Your task to perform on an android device: Open calendar and show me the third week of next month Image 0: 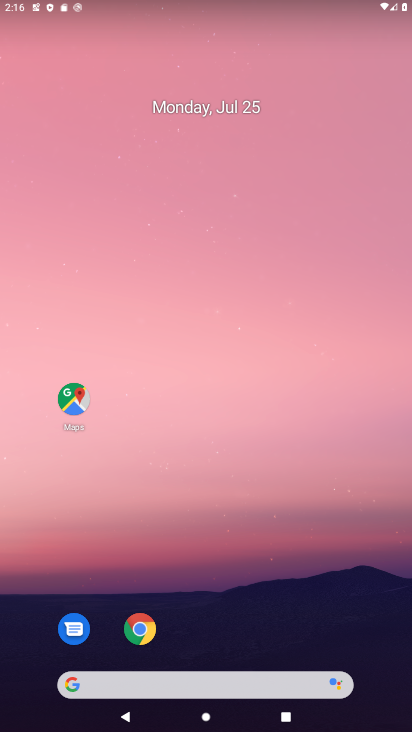
Step 0: drag from (83, 435) to (144, 154)
Your task to perform on an android device: Open calendar and show me the third week of next month Image 1: 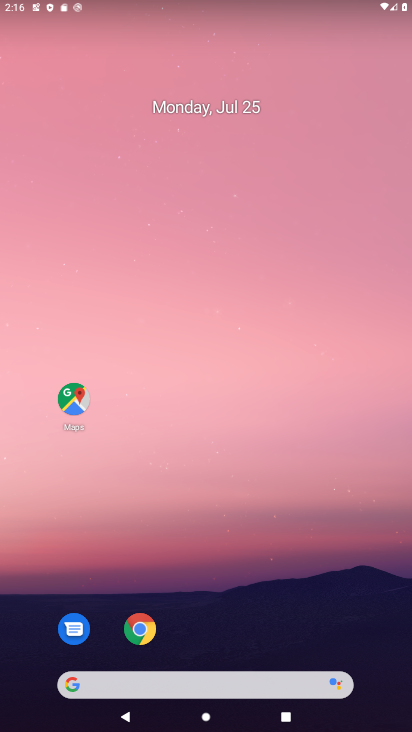
Step 1: drag from (15, 687) to (197, 140)
Your task to perform on an android device: Open calendar and show me the third week of next month Image 2: 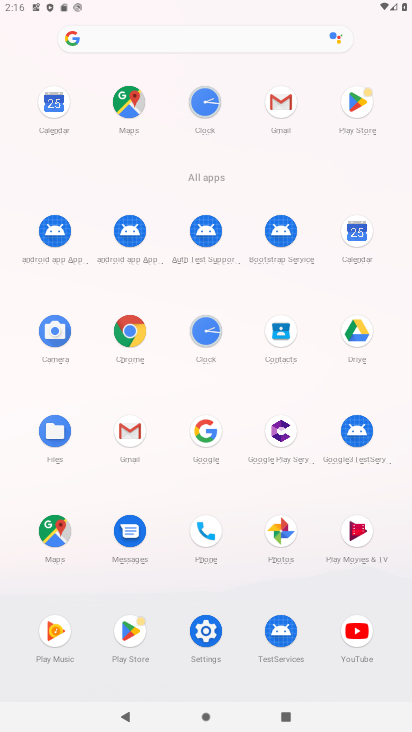
Step 2: click (348, 247)
Your task to perform on an android device: Open calendar and show me the third week of next month Image 3: 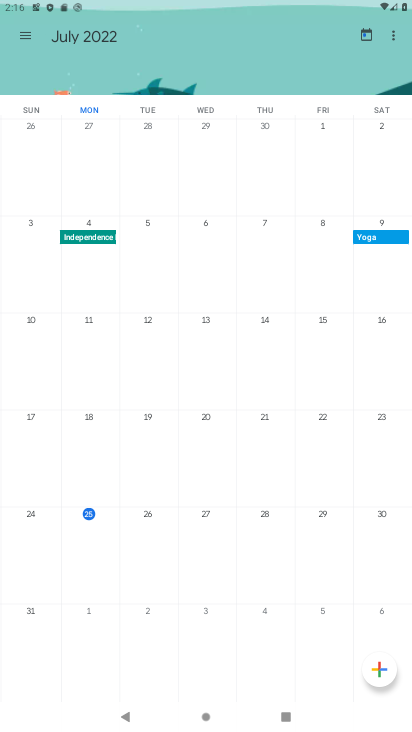
Step 3: drag from (384, 368) to (121, 339)
Your task to perform on an android device: Open calendar and show me the third week of next month Image 4: 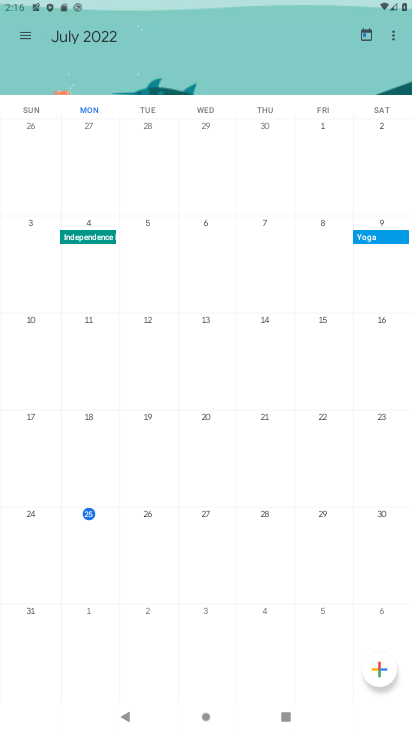
Step 4: drag from (396, 277) to (1, 373)
Your task to perform on an android device: Open calendar and show me the third week of next month Image 5: 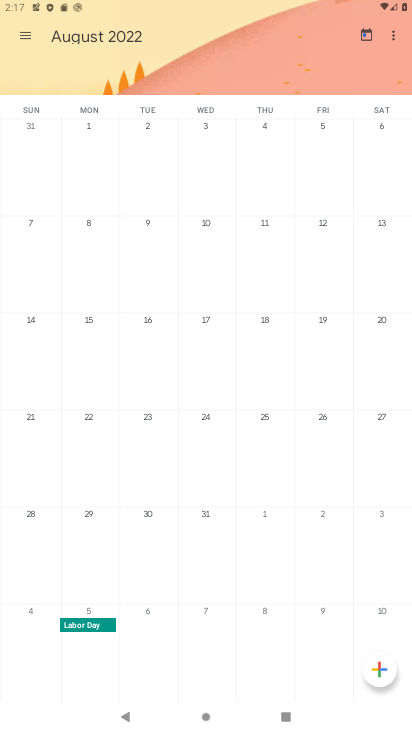
Step 5: click (71, 315)
Your task to perform on an android device: Open calendar and show me the third week of next month Image 6: 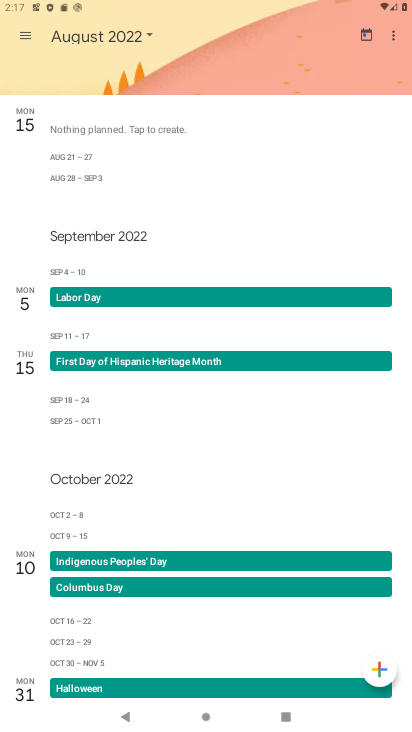
Step 6: task complete